Your task to perform on an android device: open wifi settings Image 0: 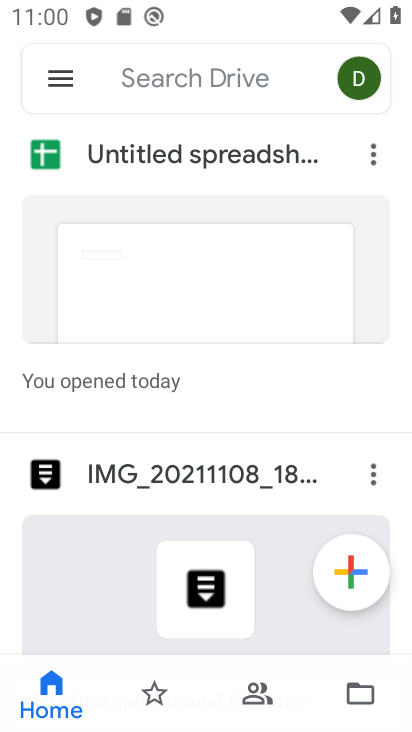
Step 0: press home button
Your task to perform on an android device: open wifi settings Image 1: 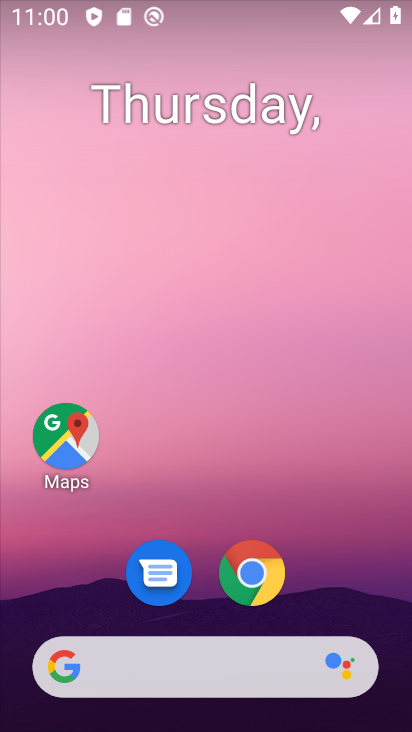
Step 1: drag from (183, 637) to (221, 29)
Your task to perform on an android device: open wifi settings Image 2: 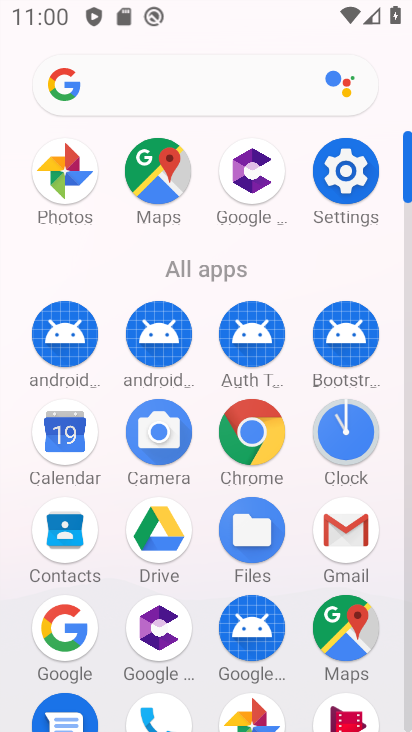
Step 2: click (334, 187)
Your task to perform on an android device: open wifi settings Image 3: 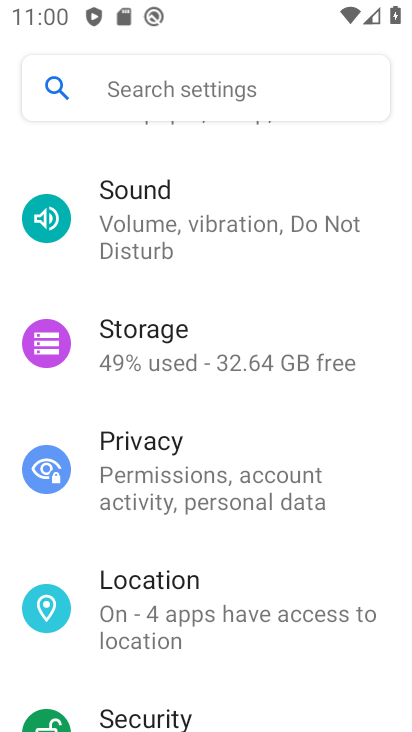
Step 3: drag from (175, 194) to (171, 634)
Your task to perform on an android device: open wifi settings Image 4: 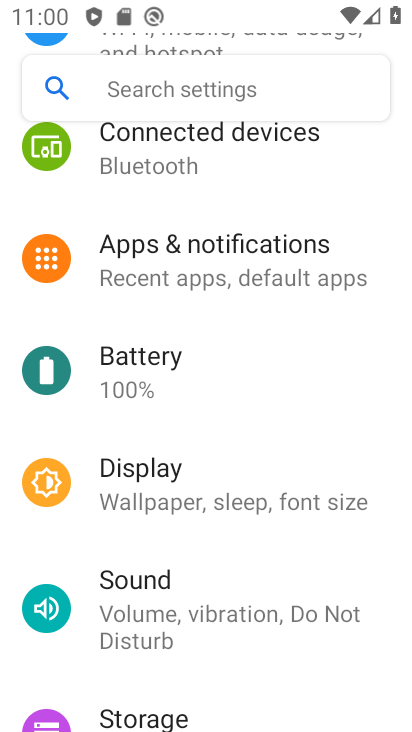
Step 4: drag from (229, 159) to (219, 606)
Your task to perform on an android device: open wifi settings Image 5: 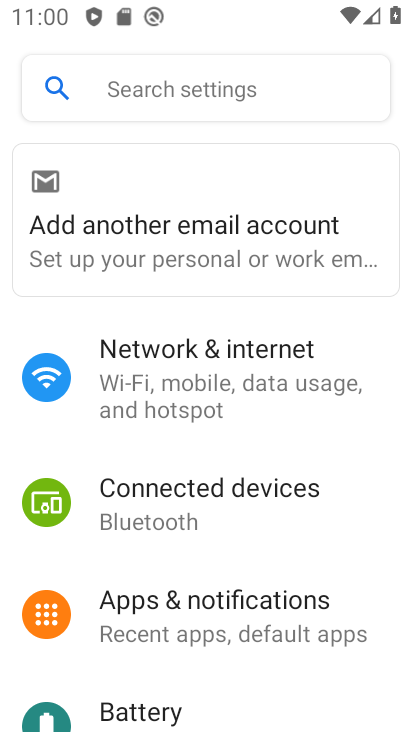
Step 5: click (191, 386)
Your task to perform on an android device: open wifi settings Image 6: 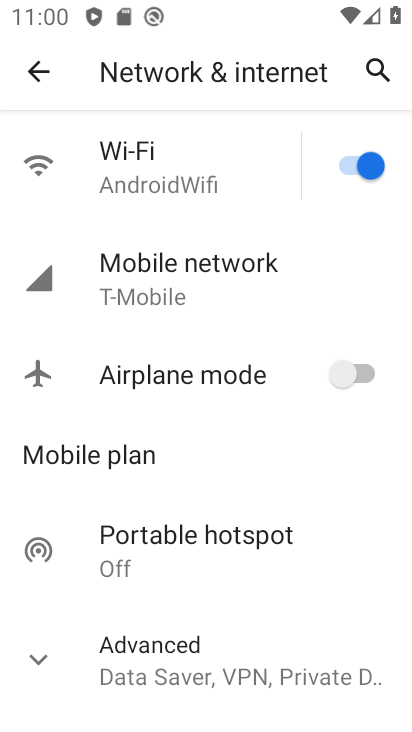
Step 6: click (175, 176)
Your task to perform on an android device: open wifi settings Image 7: 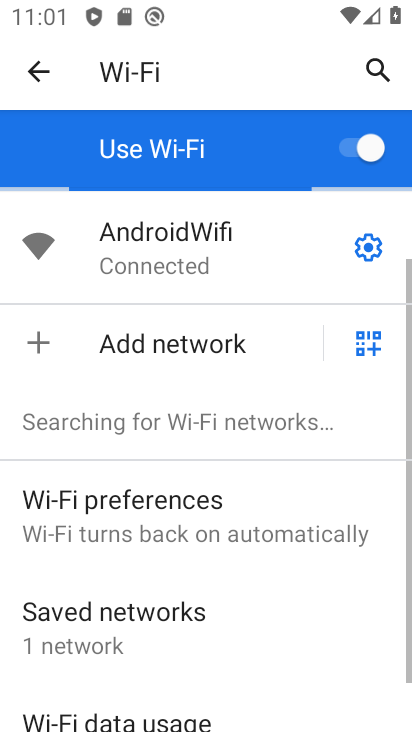
Step 7: click (370, 257)
Your task to perform on an android device: open wifi settings Image 8: 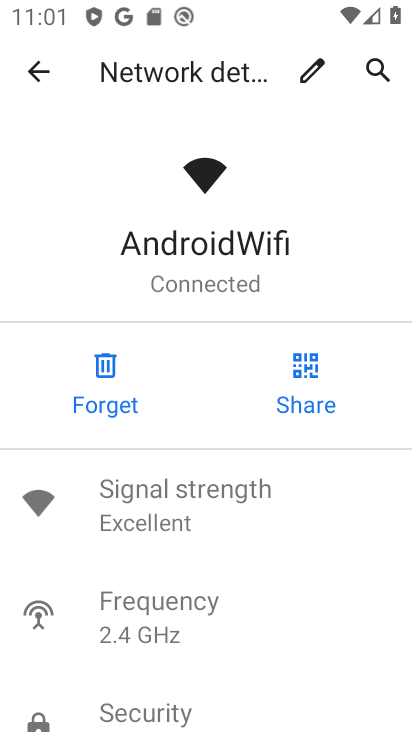
Step 8: drag from (245, 715) to (247, 277)
Your task to perform on an android device: open wifi settings Image 9: 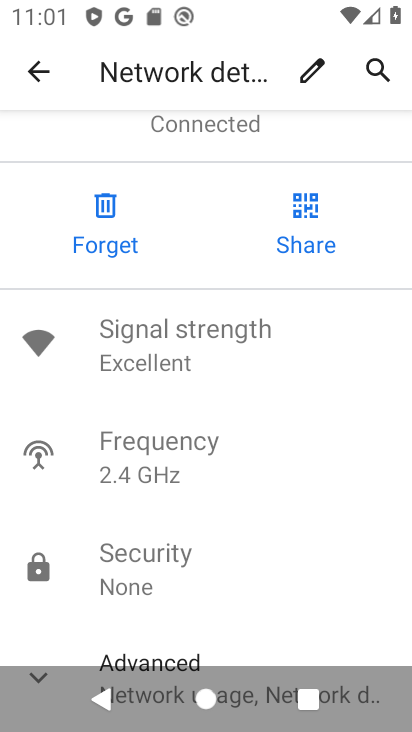
Step 9: drag from (248, 595) to (248, 274)
Your task to perform on an android device: open wifi settings Image 10: 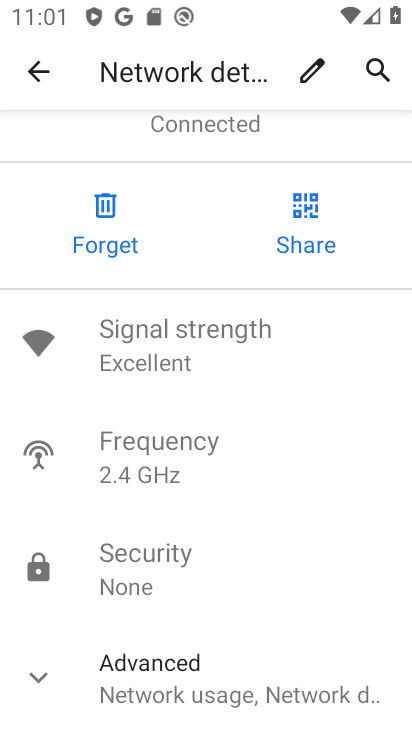
Step 10: click (184, 677)
Your task to perform on an android device: open wifi settings Image 11: 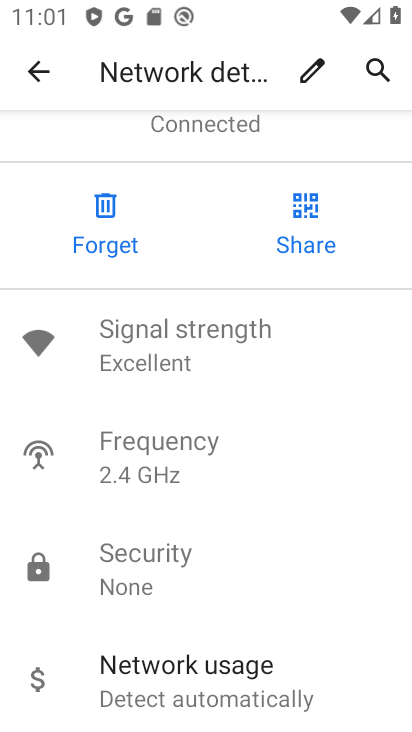
Step 11: task complete